Your task to perform on an android device: toggle javascript in the chrome app Image 0: 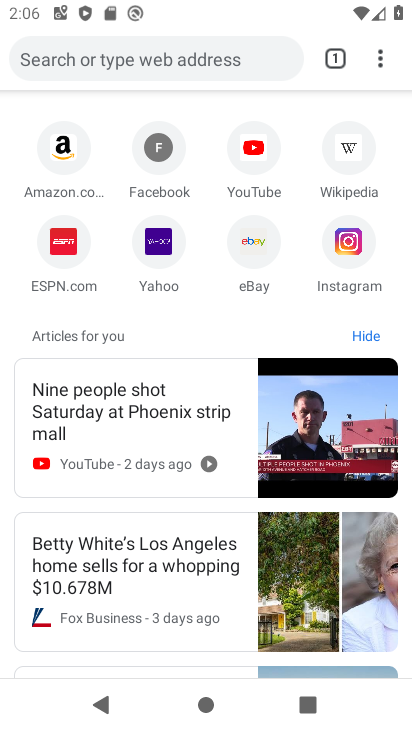
Step 0: click (387, 75)
Your task to perform on an android device: toggle javascript in the chrome app Image 1: 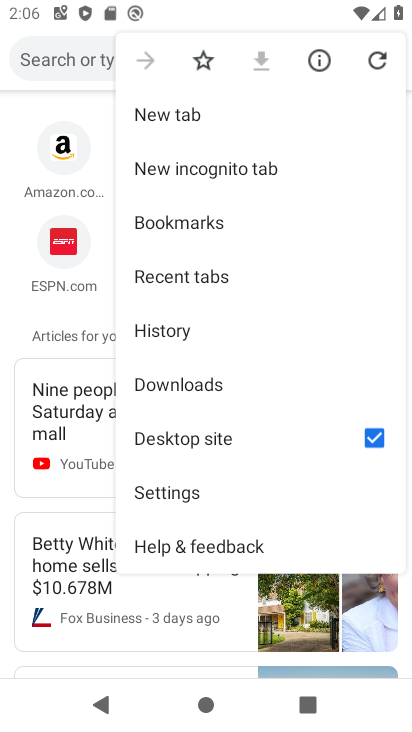
Step 1: drag from (234, 434) to (239, 290)
Your task to perform on an android device: toggle javascript in the chrome app Image 2: 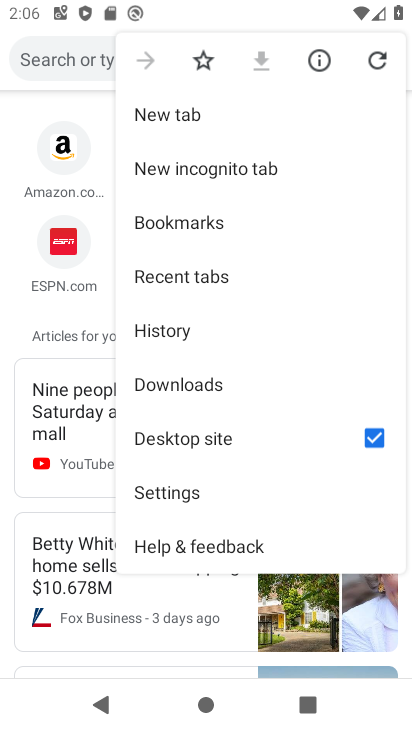
Step 2: click (175, 487)
Your task to perform on an android device: toggle javascript in the chrome app Image 3: 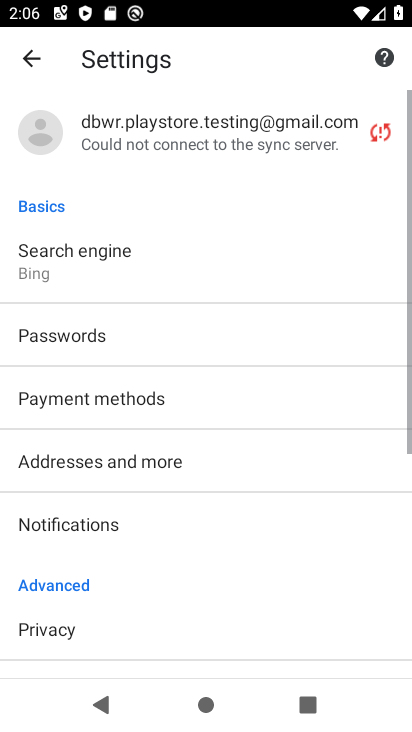
Step 3: drag from (132, 577) to (189, 346)
Your task to perform on an android device: toggle javascript in the chrome app Image 4: 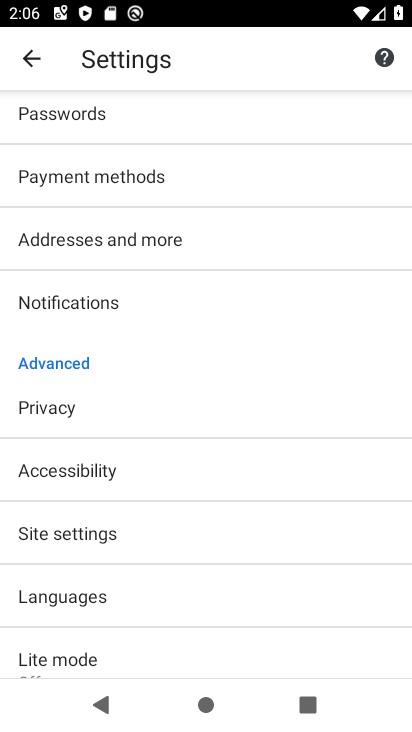
Step 4: drag from (115, 534) to (211, 242)
Your task to perform on an android device: toggle javascript in the chrome app Image 5: 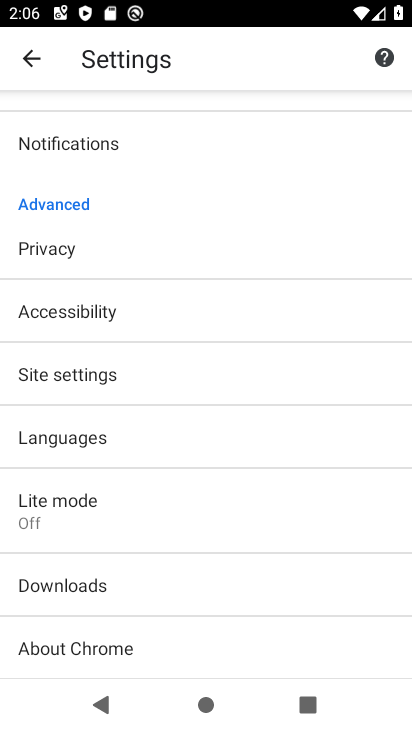
Step 5: click (157, 375)
Your task to perform on an android device: toggle javascript in the chrome app Image 6: 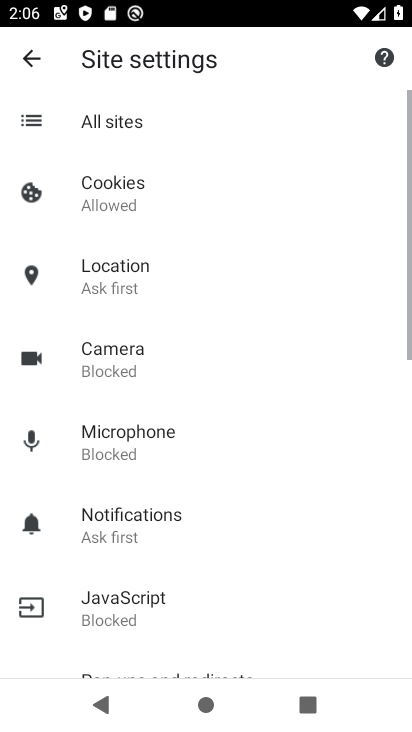
Step 6: drag from (168, 562) to (223, 341)
Your task to perform on an android device: toggle javascript in the chrome app Image 7: 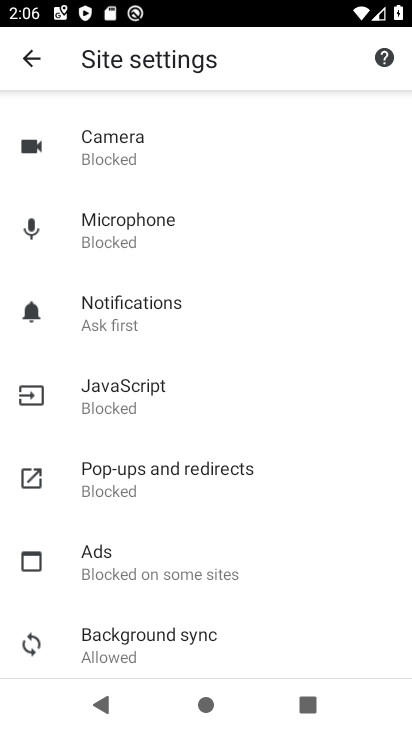
Step 7: click (167, 410)
Your task to perform on an android device: toggle javascript in the chrome app Image 8: 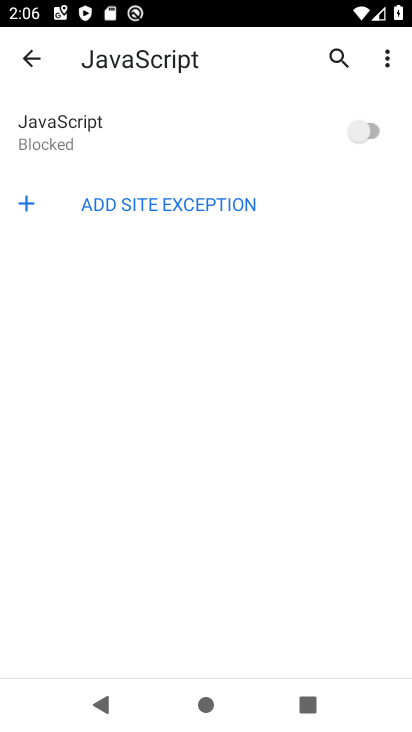
Step 8: click (396, 138)
Your task to perform on an android device: toggle javascript in the chrome app Image 9: 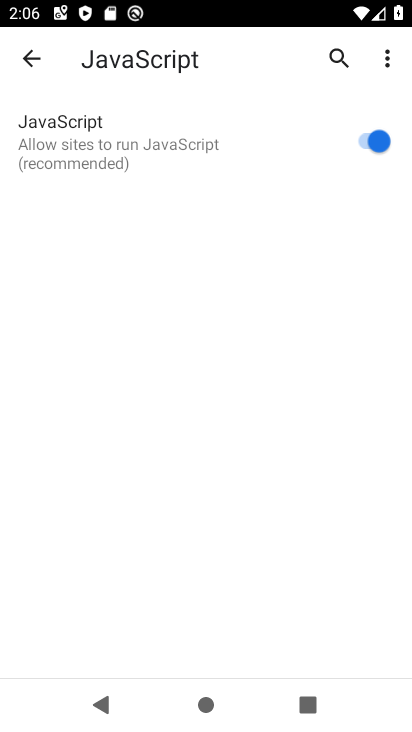
Step 9: task complete